Your task to perform on an android device: View the shopping cart on walmart.com. Image 0: 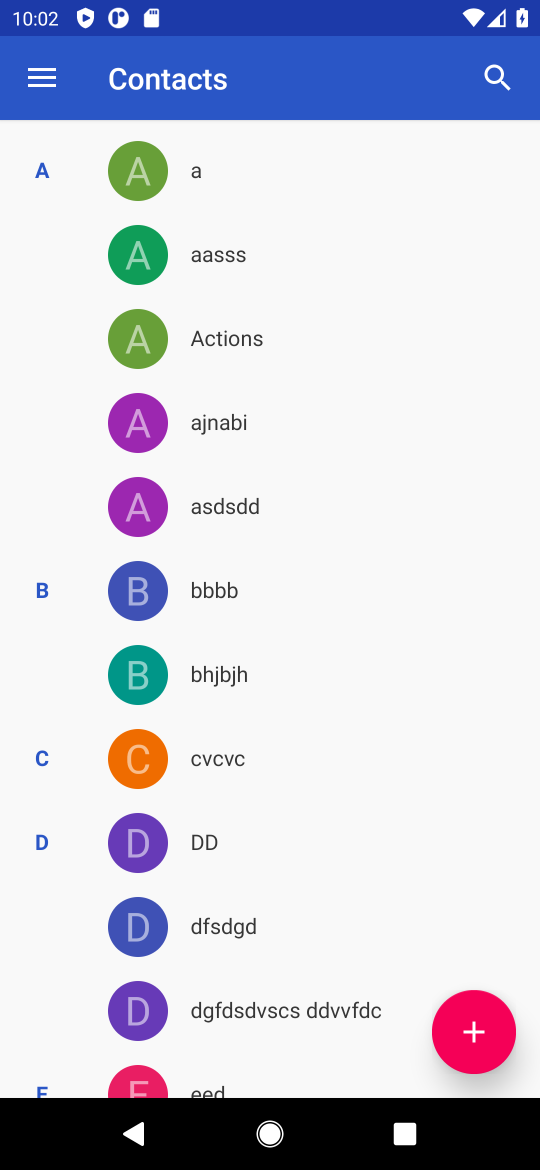
Step 0: press home button
Your task to perform on an android device: View the shopping cart on walmart.com. Image 1: 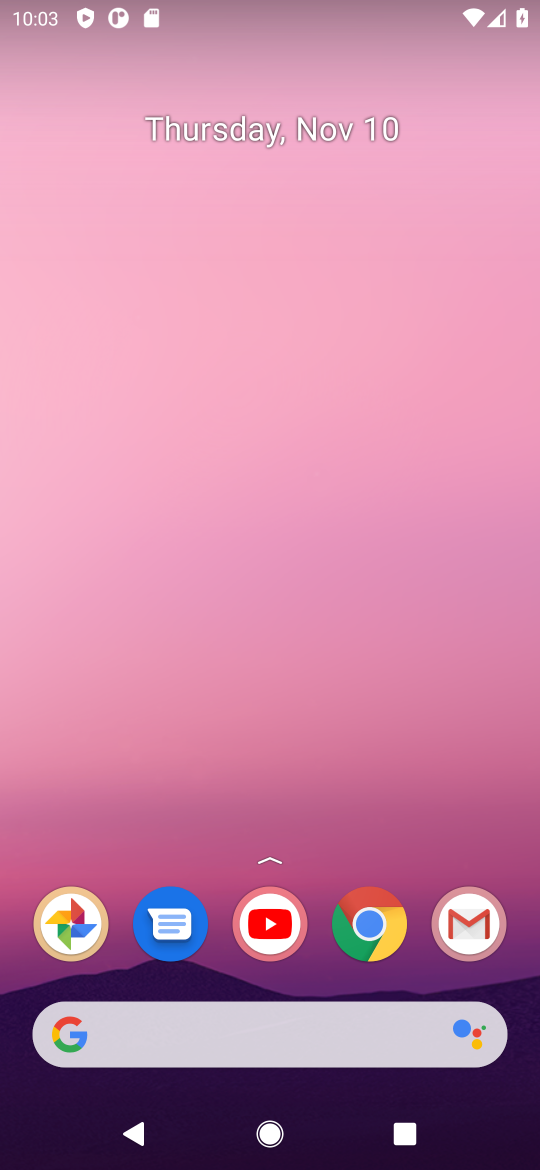
Step 1: click (372, 927)
Your task to perform on an android device: View the shopping cart on walmart.com. Image 2: 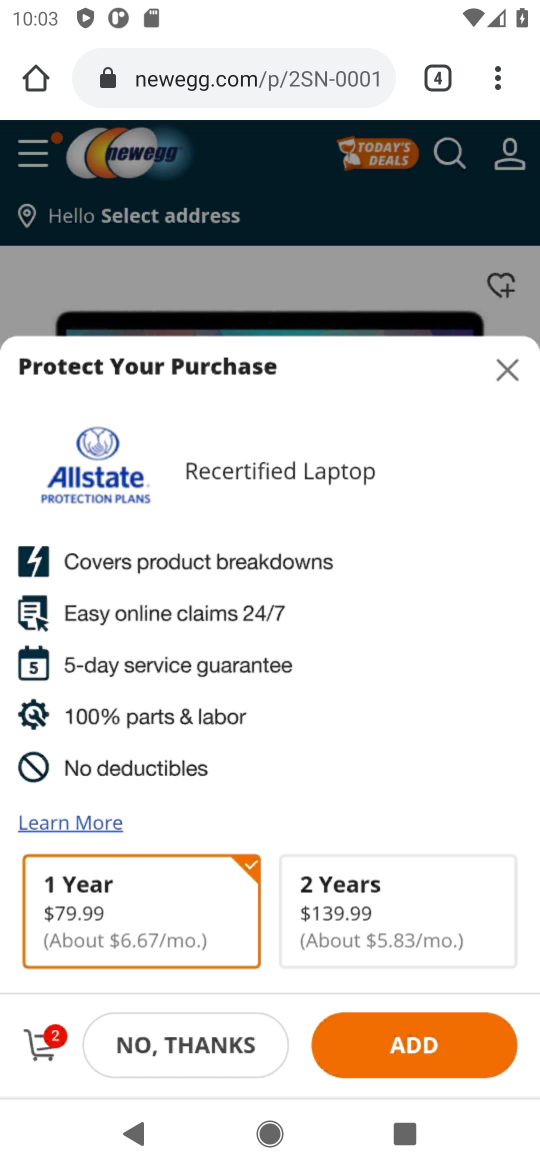
Step 2: click (221, 78)
Your task to perform on an android device: View the shopping cart on walmart.com. Image 3: 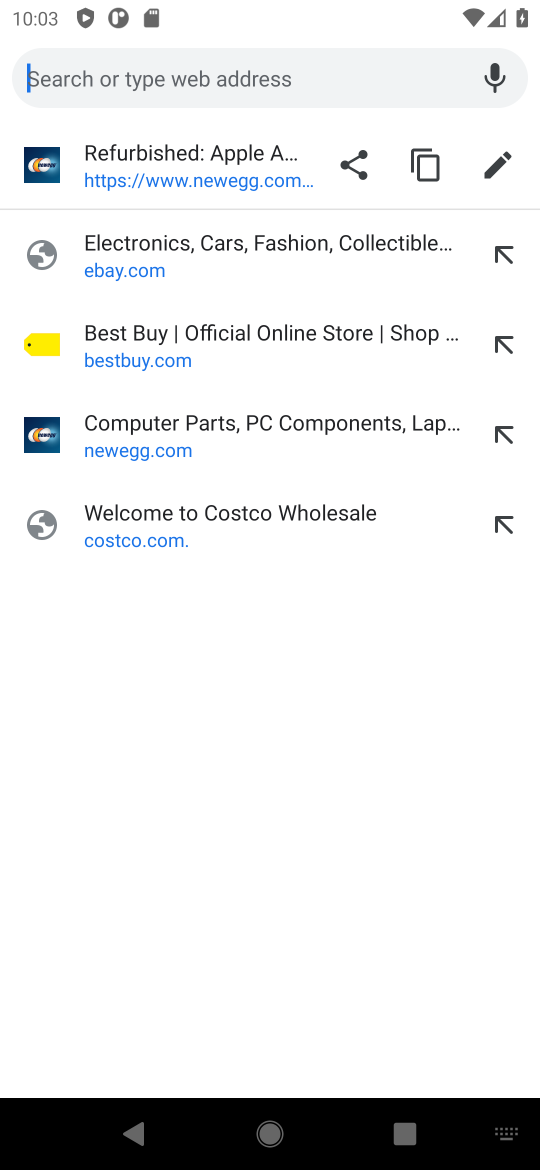
Step 3: type "walmart.com"
Your task to perform on an android device: View the shopping cart on walmart.com. Image 4: 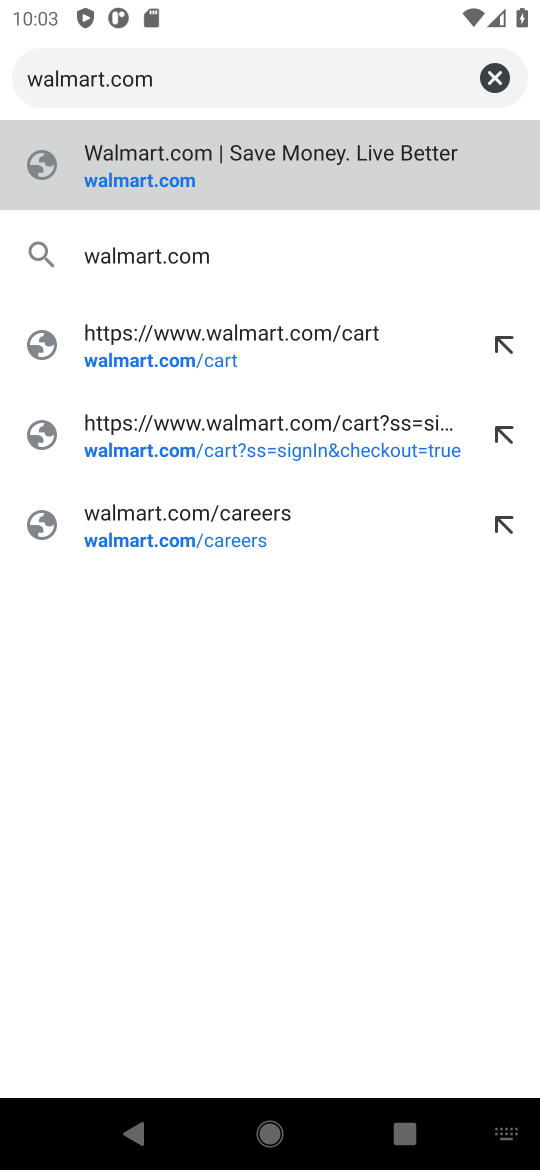
Step 4: click (137, 186)
Your task to perform on an android device: View the shopping cart on walmart.com. Image 5: 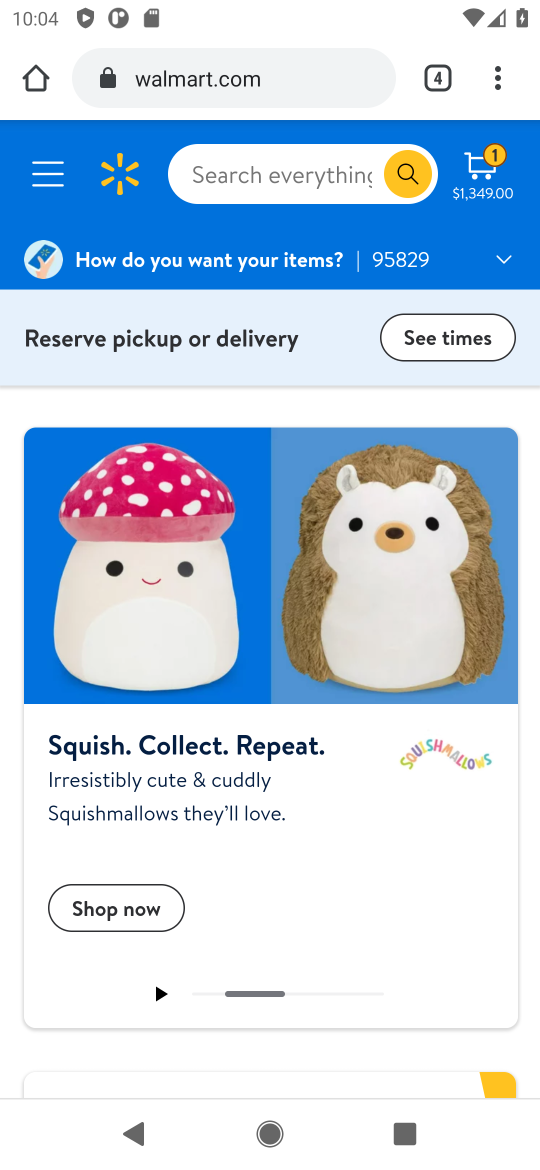
Step 5: click (484, 178)
Your task to perform on an android device: View the shopping cart on walmart.com. Image 6: 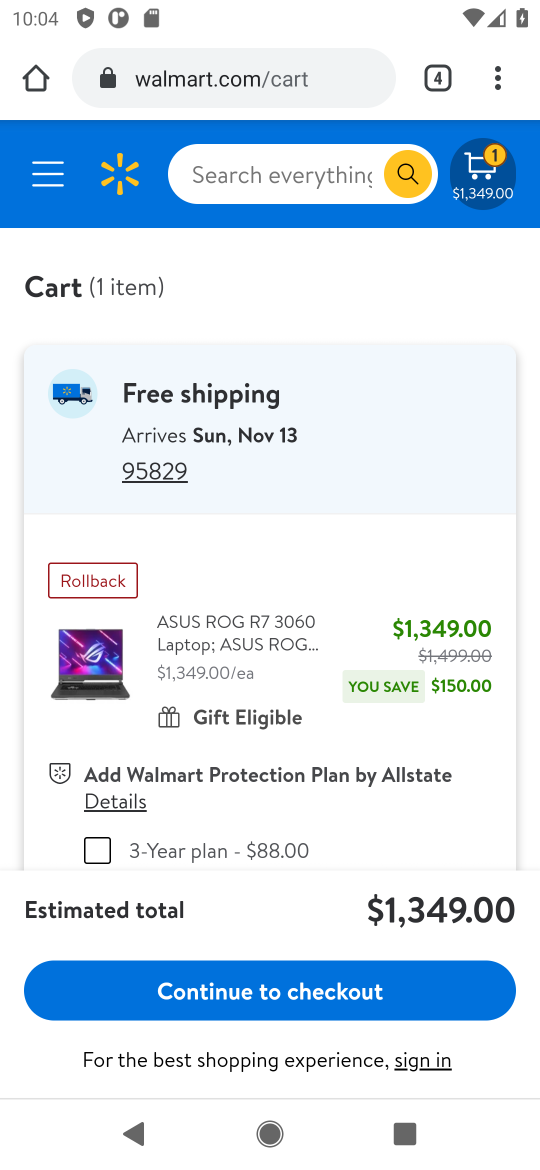
Step 6: task complete